Your task to perform on an android device: What's the weather going to be this weekend? Image 0: 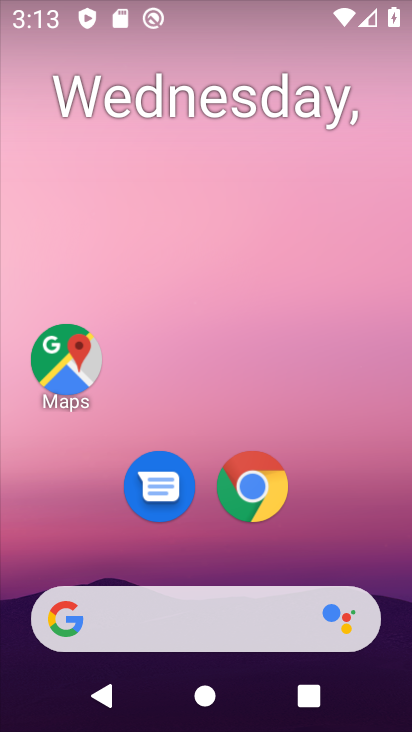
Step 0: drag from (226, 597) to (237, 215)
Your task to perform on an android device: What's the weather going to be this weekend? Image 1: 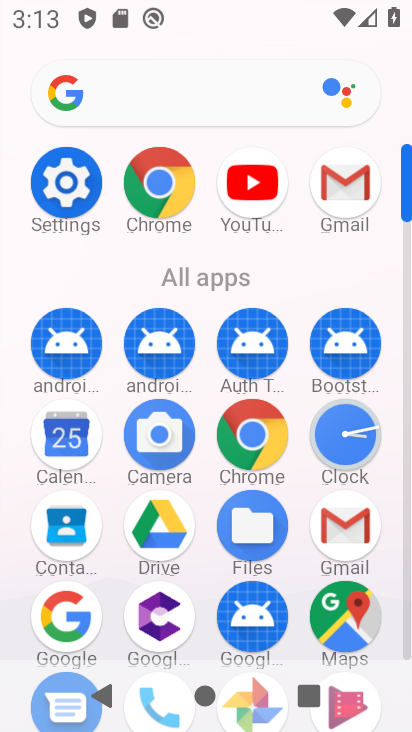
Step 1: drag from (112, 630) to (116, 228)
Your task to perform on an android device: What's the weather going to be this weekend? Image 2: 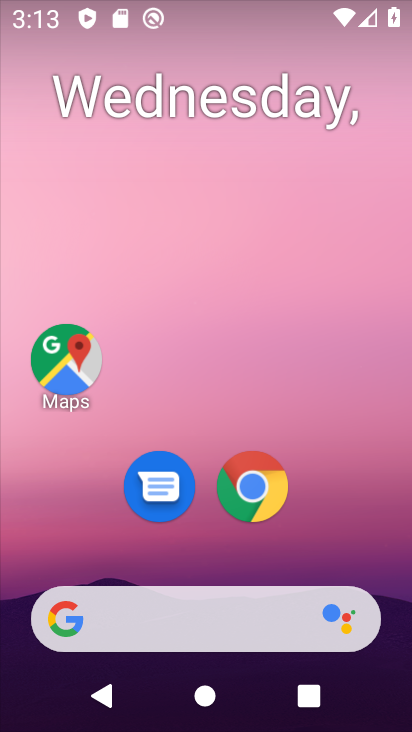
Step 2: drag from (188, 572) to (217, 30)
Your task to perform on an android device: What's the weather going to be this weekend? Image 3: 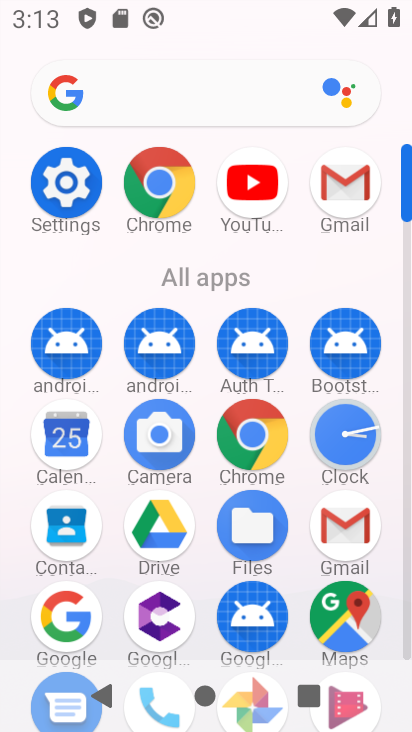
Step 3: click (74, 616)
Your task to perform on an android device: What's the weather going to be this weekend? Image 4: 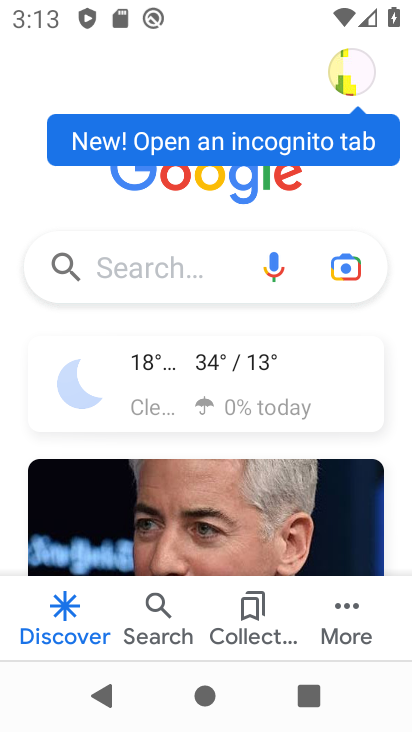
Step 4: click (198, 368)
Your task to perform on an android device: What's the weather going to be this weekend? Image 5: 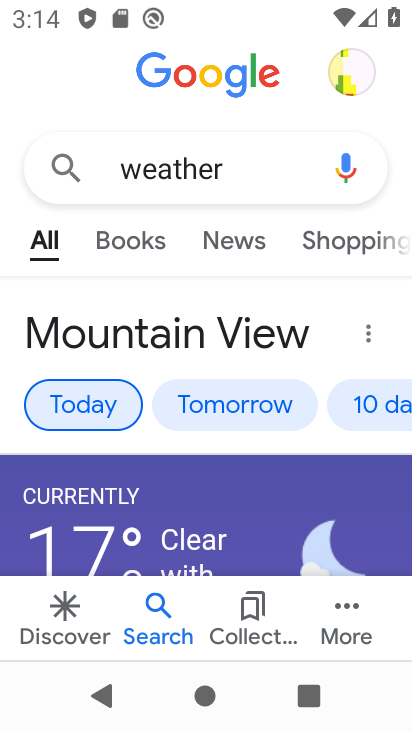
Step 5: click (260, 410)
Your task to perform on an android device: What's the weather going to be this weekend? Image 6: 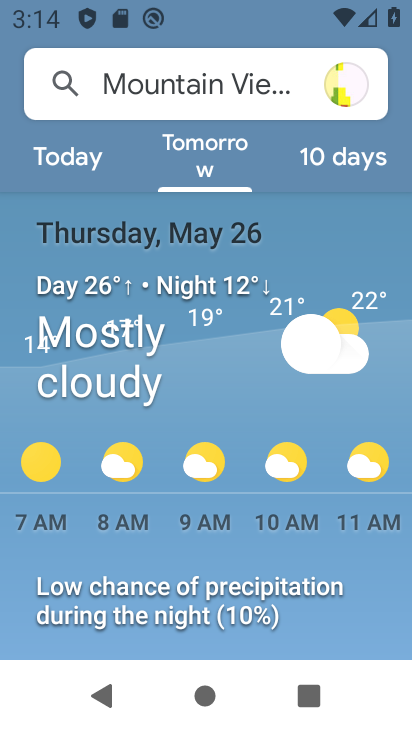
Step 6: task complete